Your task to perform on an android device: turn on airplane mode Image 0: 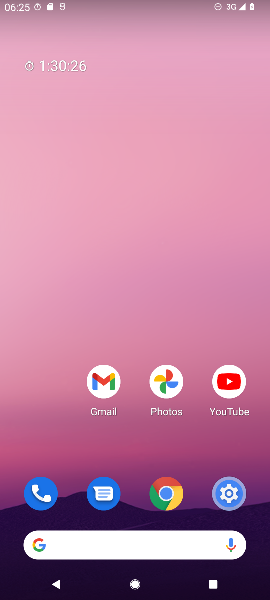
Step 0: press home button
Your task to perform on an android device: turn on airplane mode Image 1: 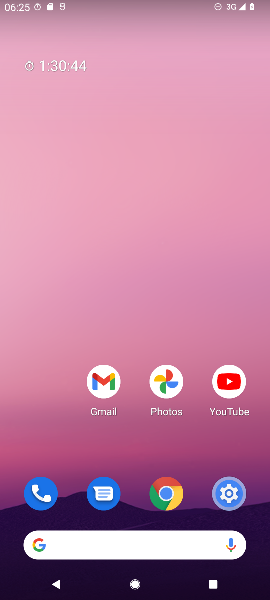
Step 1: drag from (55, 429) to (182, 89)
Your task to perform on an android device: turn on airplane mode Image 2: 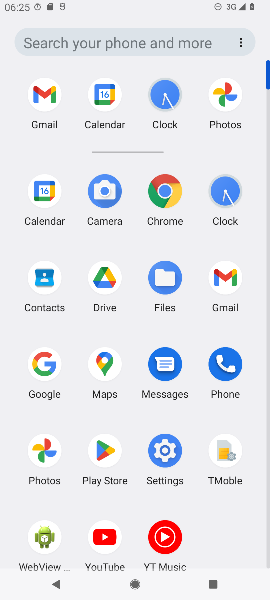
Step 2: click (153, 459)
Your task to perform on an android device: turn on airplane mode Image 3: 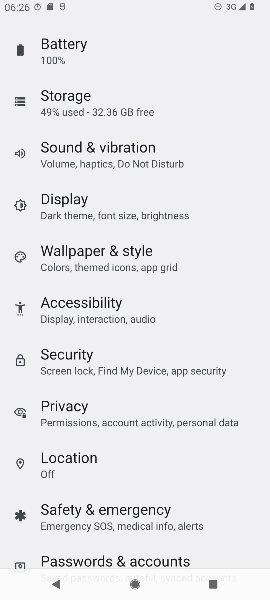
Step 3: drag from (232, 503) to (218, 306)
Your task to perform on an android device: turn on airplane mode Image 4: 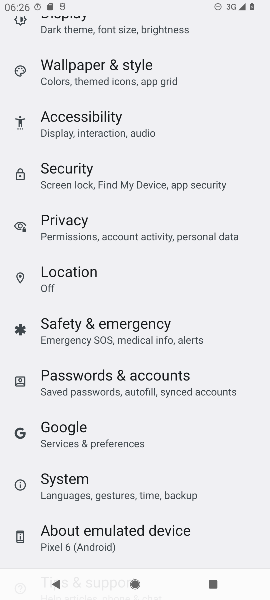
Step 4: drag from (226, 512) to (216, 302)
Your task to perform on an android device: turn on airplane mode Image 5: 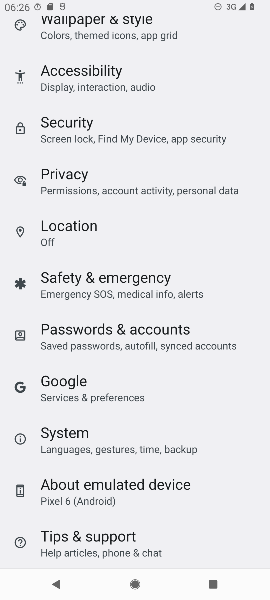
Step 5: drag from (229, 210) to (242, 336)
Your task to perform on an android device: turn on airplane mode Image 6: 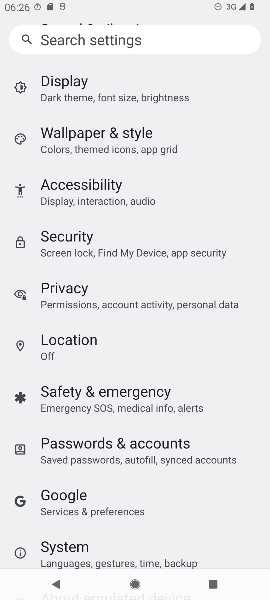
Step 6: drag from (243, 139) to (252, 276)
Your task to perform on an android device: turn on airplane mode Image 7: 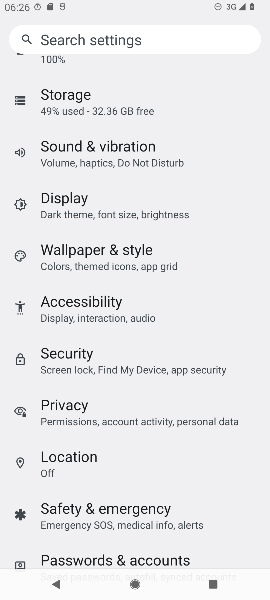
Step 7: drag from (236, 119) to (233, 229)
Your task to perform on an android device: turn on airplane mode Image 8: 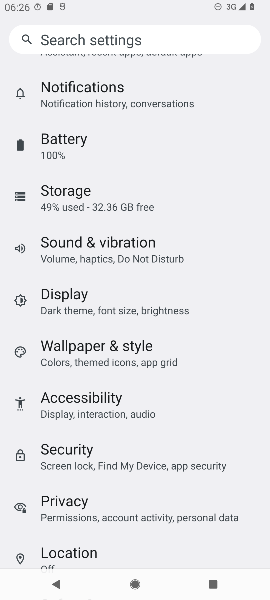
Step 8: drag from (230, 97) to (220, 225)
Your task to perform on an android device: turn on airplane mode Image 9: 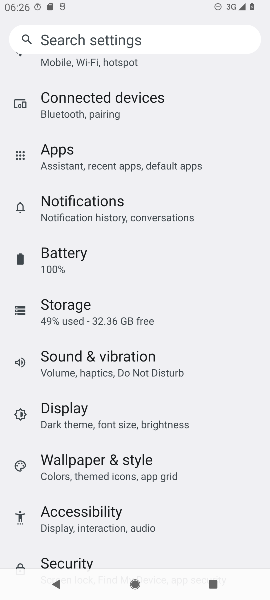
Step 9: drag from (220, 82) to (216, 235)
Your task to perform on an android device: turn on airplane mode Image 10: 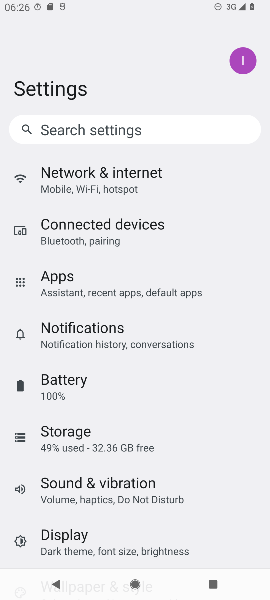
Step 10: click (161, 180)
Your task to perform on an android device: turn on airplane mode Image 11: 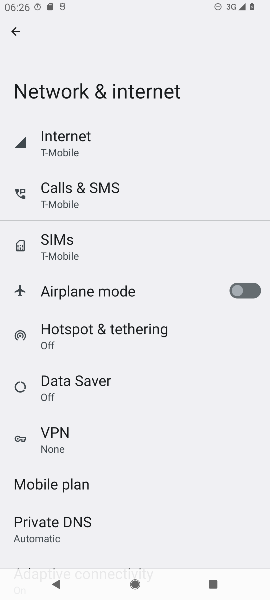
Step 11: click (242, 289)
Your task to perform on an android device: turn on airplane mode Image 12: 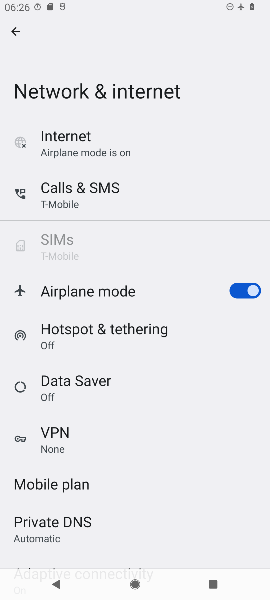
Step 12: task complete